Your task to perform on an android device: Open sound settings Image 0: 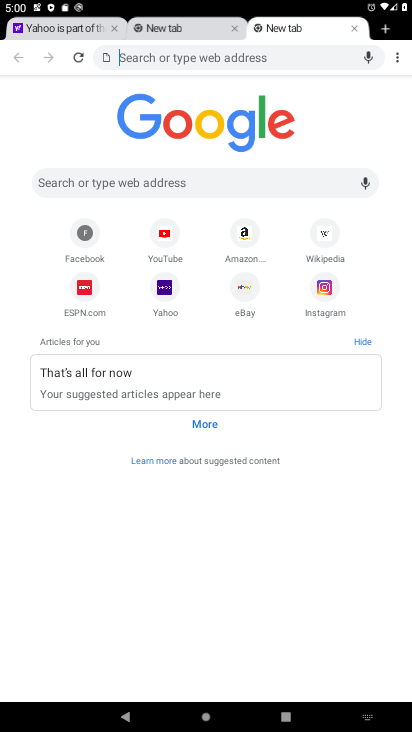
Step 0: press back button
Your task to perform on an android device: Open sound settings Image 1: 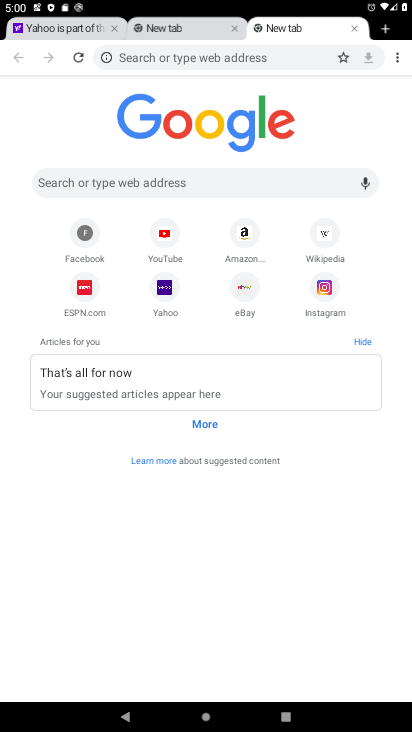
Step 1: press back button
Your task to perform on an android device: Open sound settings Image 2: 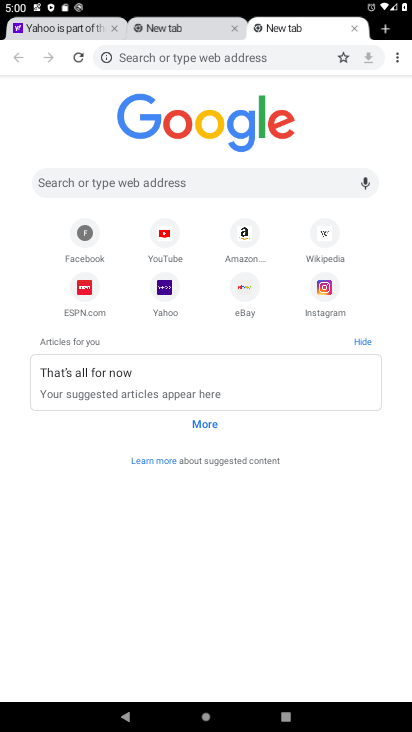
Step 2: press back button
Your task to perform on an android device: Open sound settings Image 3: 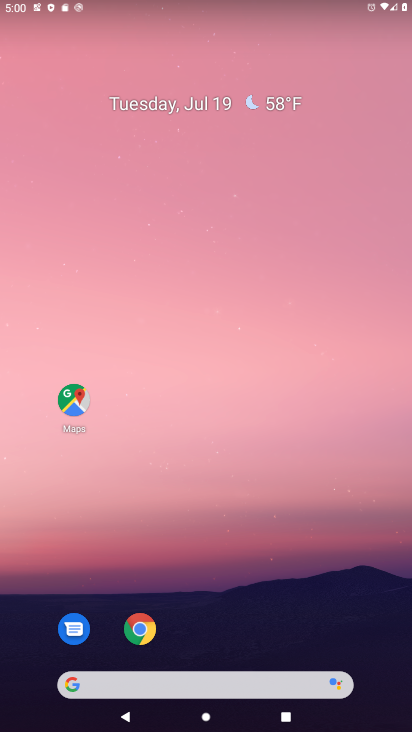
Step 3: drag from (238, 568) to (209, 31)
Your task to perform on an android device: Open sound settings Image 4: 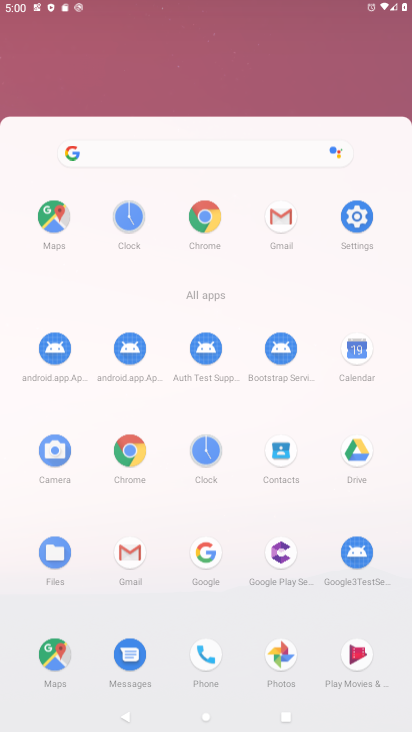
Step 4: drag from (189, 435) to (176, 41)
Your task to perform on an android device: Open sound settings Image 5: 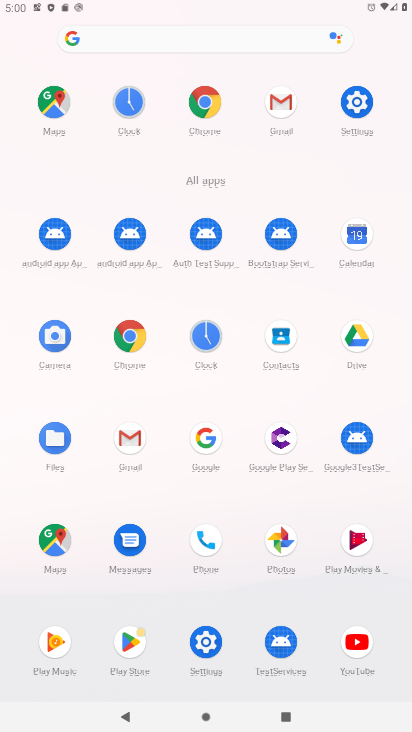
Step 5: click (361, 97)
Your task to perform on an android device: Open sound settings Image 6: 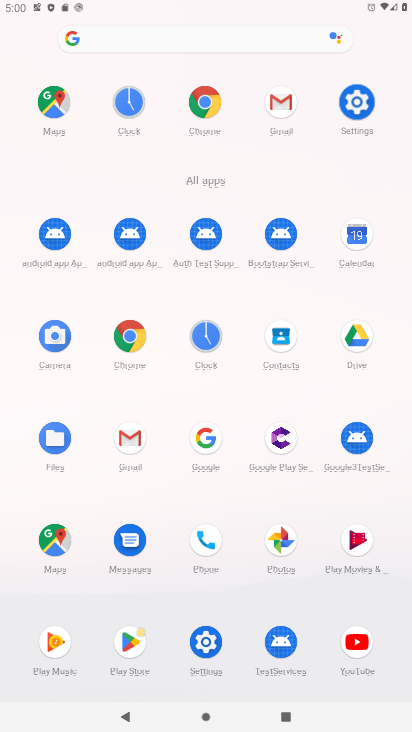
Step 6: click (357, 100)
Your task to perform on an android device: Open sound settings Image 7: 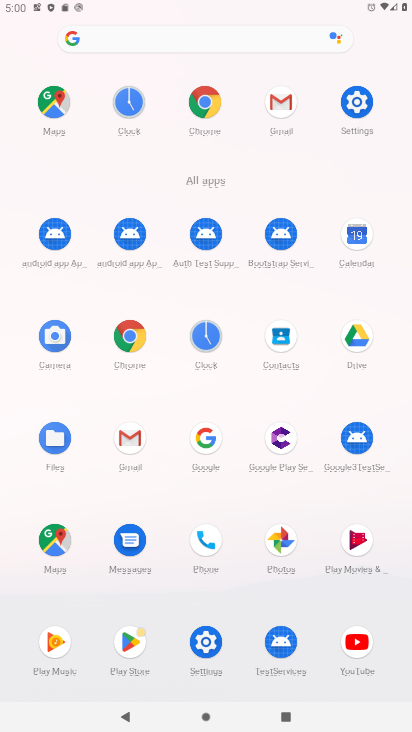
Step 7: click (359, 110)
Your task to perform on an android device: Open sound settings Image 8: 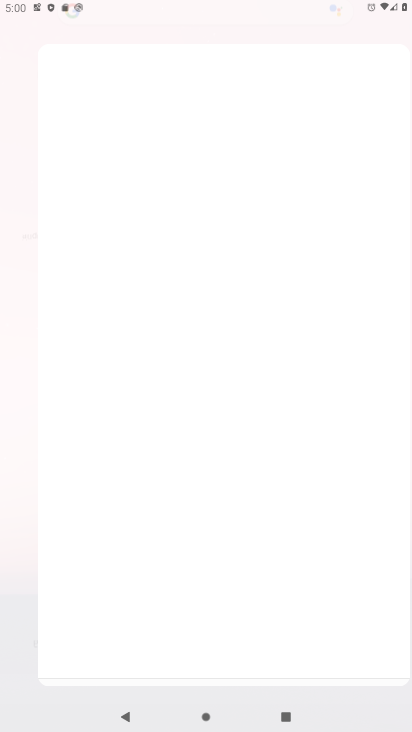
Step 8: click (365, 105)
Your task to perform on an android device: Open sound settings Image 9: 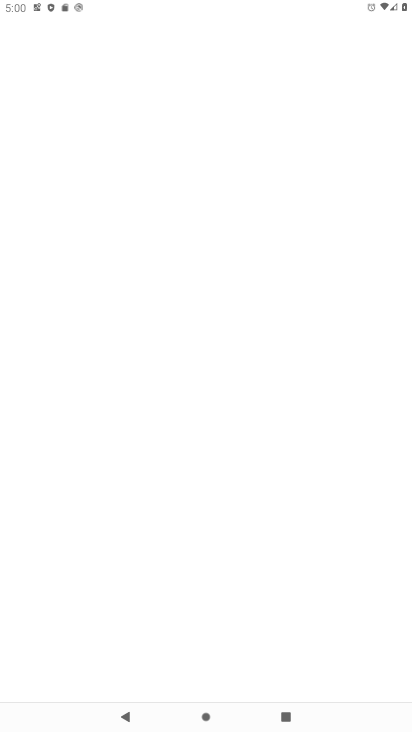
Step 9: click (364, 107)
Your task to perform on an android device: Open sound settings Image 10: 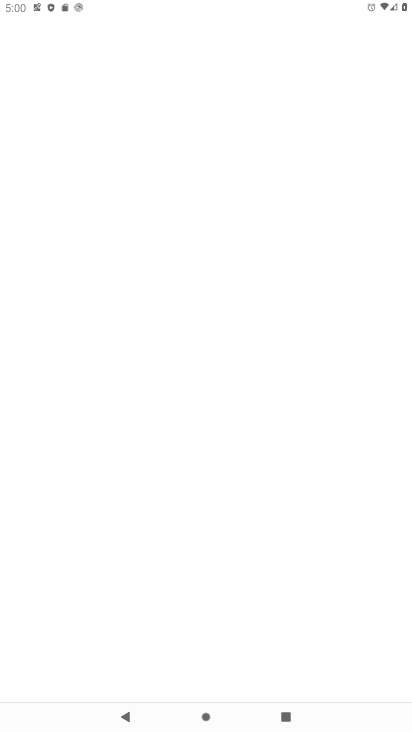
Step 10: click (360, 112)
Your task to perform on an android device: Open sound settings Image 11: 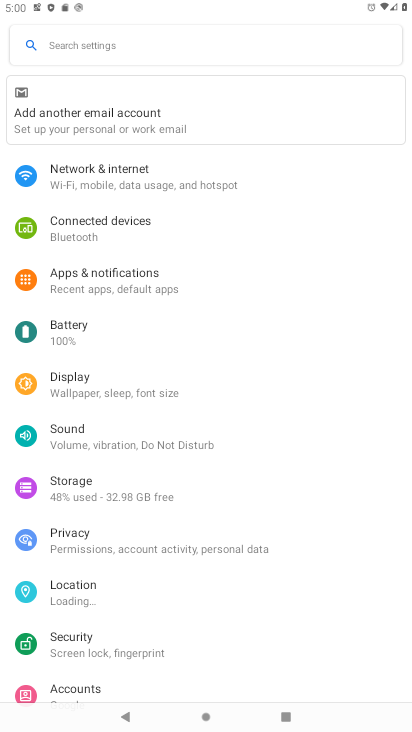
Step 11: click (74, 428)
Your task to perform on an android device: Open sound settings Image 12: 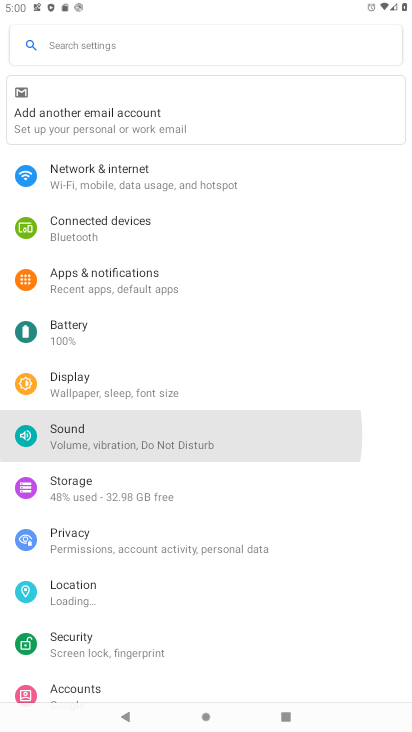
Step 12: click (74, 429)
Your task to perform on an android device: Open sound settings Image 13: 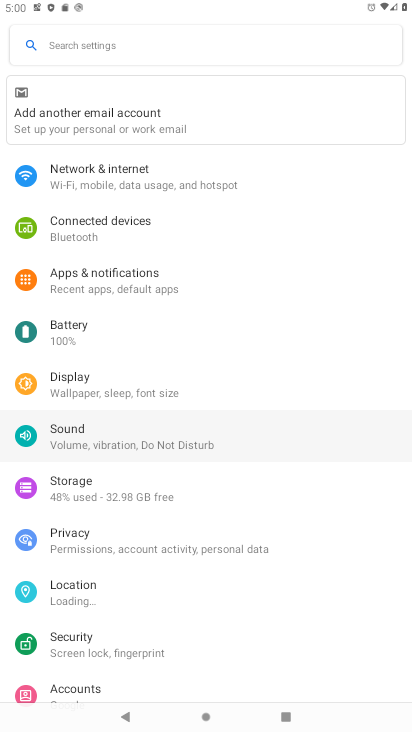
Step 13: click (74, 429)
Your task to perform on an android device: Open sound settings Image 14: 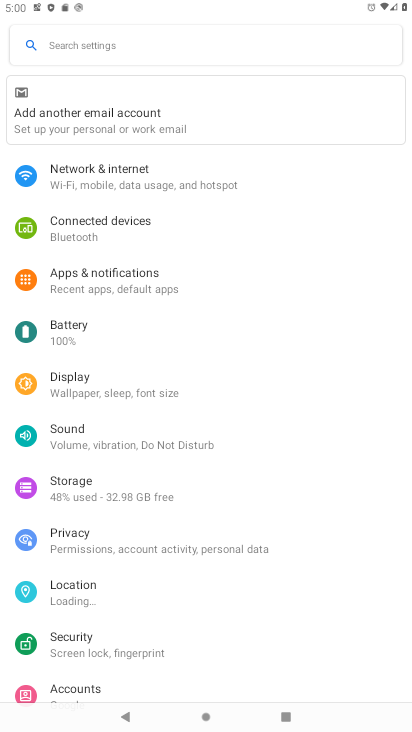
Step 14: click (75, 426)
Your task to perform on an android device: Open sound settings Image 15: 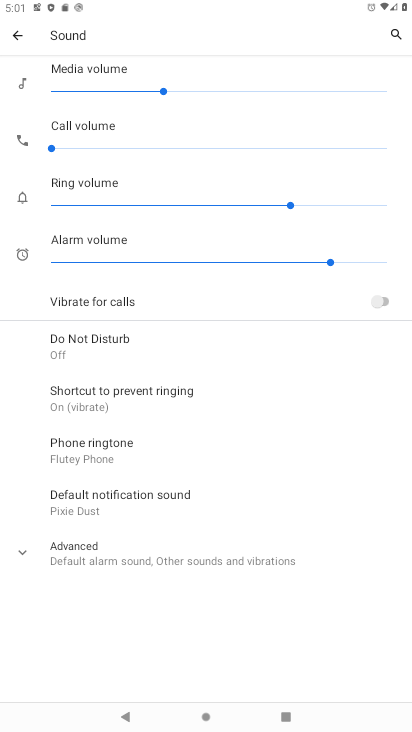
Step 15: task complete